Your task to perform on an android device: show emergency info Image 0: 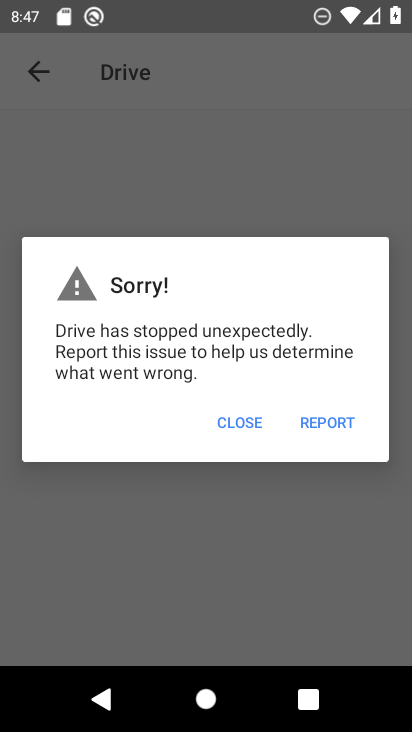
Step 0: press home button
Your task to perform on an android device: show emergency info Image 1: 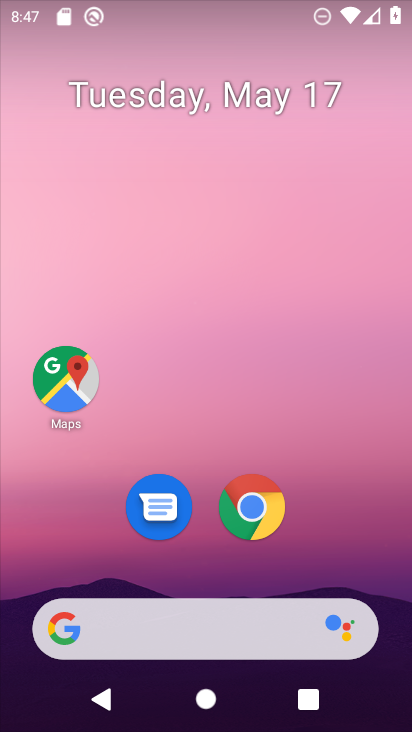
Step 1: drag from (370, 582) to (367, 12)
Your task to perform on an android device: show emergency info Image 2: 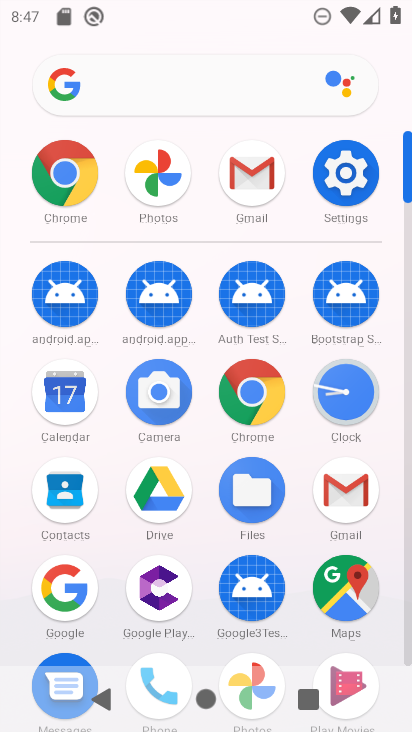
Step 2: click (353, 171)
Your task to perform on an android device: show emergency info Image 3: 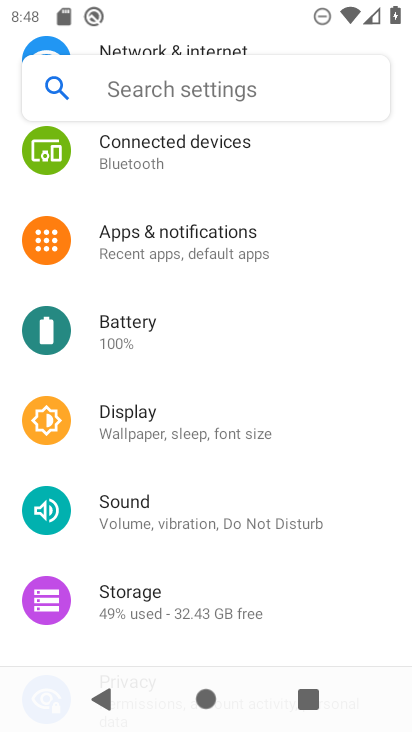
Step 3: drag from (376, 577) to (354, 10)
Your task to perform on an android device: show emergency info Image 4: 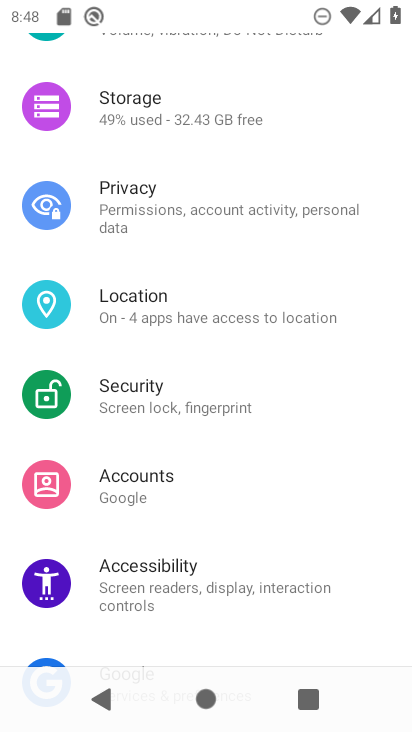
Step 4: drag from (356, 573) to (323, 91)
Your task to perform on an android device: show emergency info Image 5: 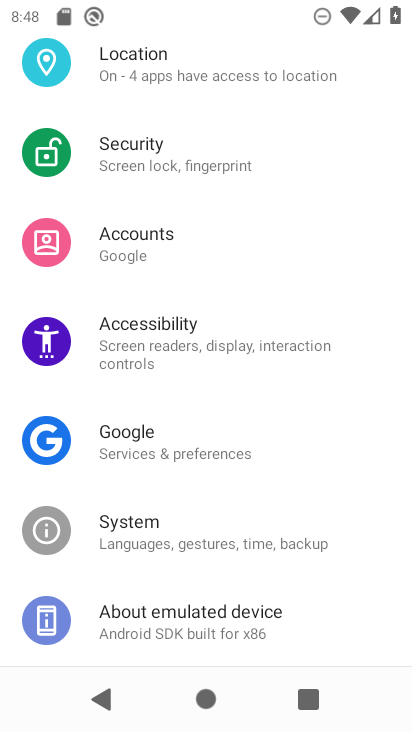
Step 5: click (159, 619)
Your task to perform on an android device: show emergency info Image 6: 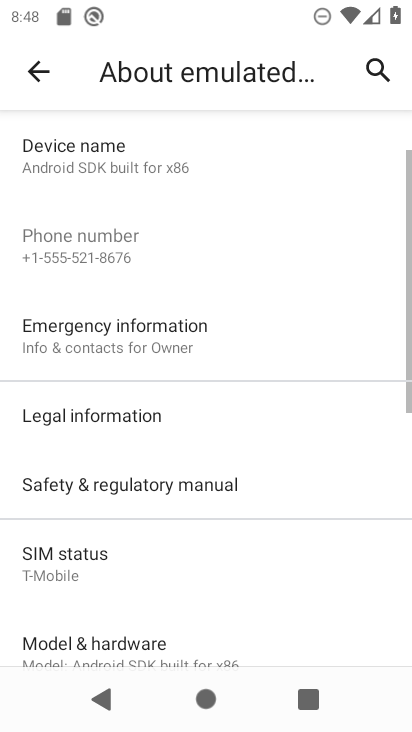
Step 6: click (77, 340)
Your task to perform on an android device: show emergency info Image 7: 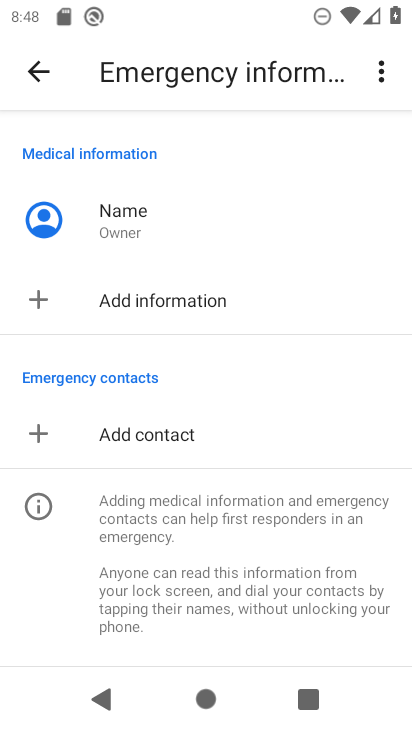
Step 7: task complete